Your task to perform on an android device: turn off data saver in the chrome app Image 0: 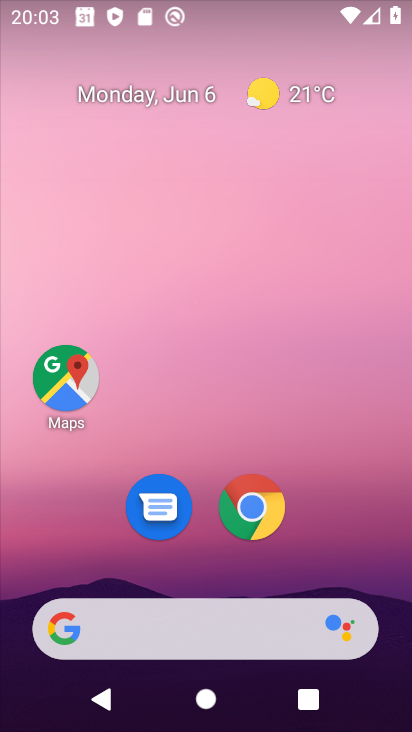
Step 0: drag from (210, 540) to (185, 0)
Your task to perform on an android device: turn off data saver in the chrome app Image 1: 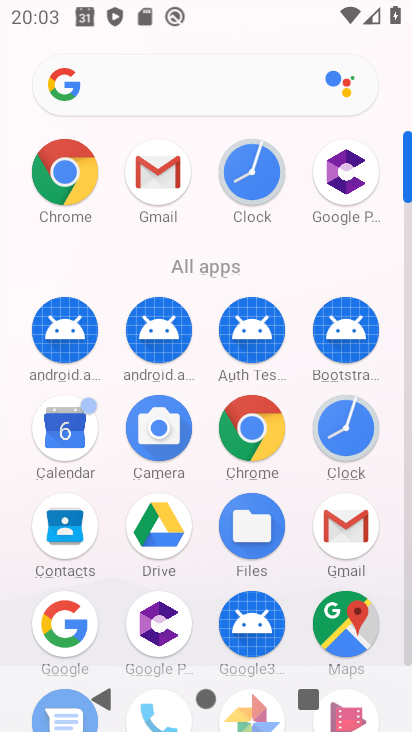
Step 1: click (67, 166)
Your task to perform on an android device: turn off data saver in the chrome app Image 2: 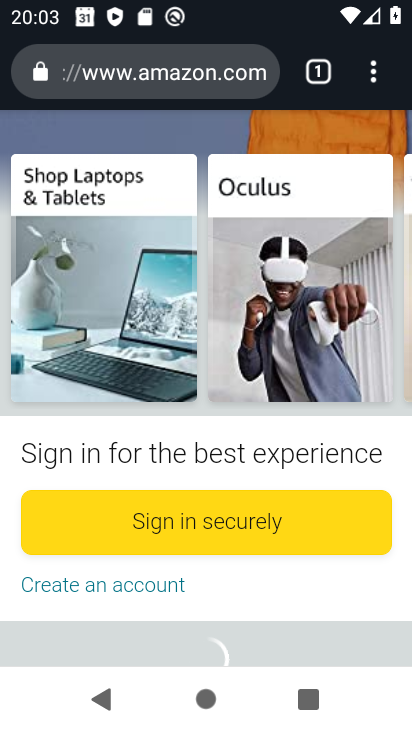
Step 2: click (375, 76)
Your task to perform on an android device: turn off data saver in the chrome app Image 3: 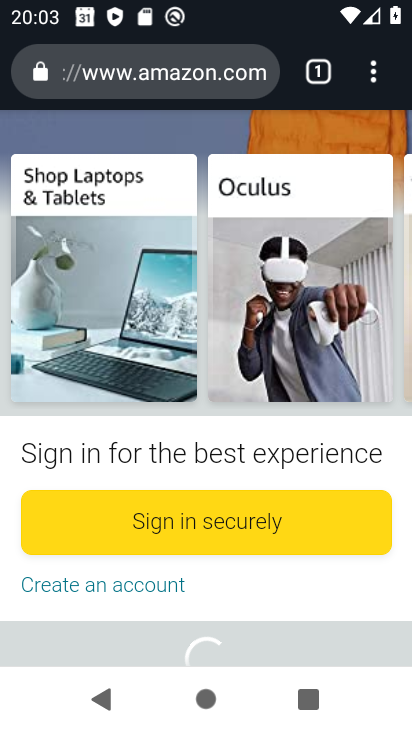
Step 3: click (380, 79)
Your task to perform on an android device: turn off data saver in the chrome app Image 4: 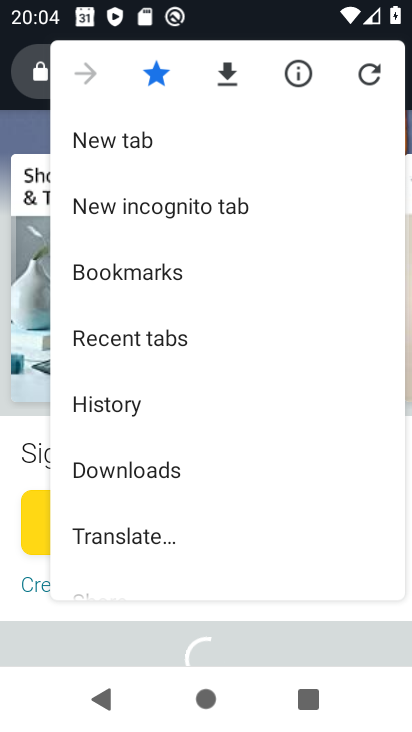
Step 4: drag from (185, 509) to (186, 209)
Your task to perform on an android device: turn off data saver in the chrome app Image 5: 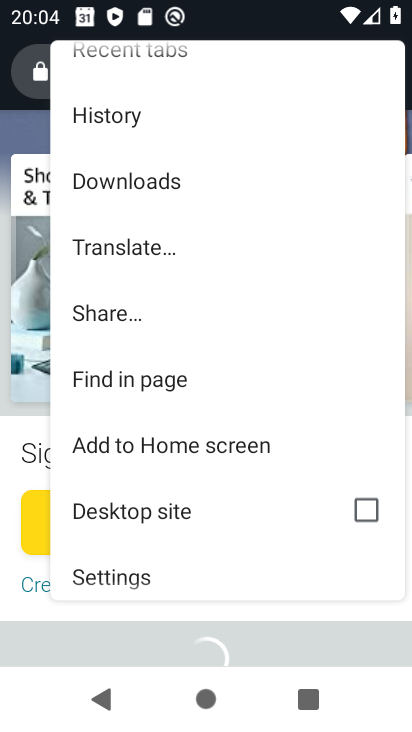
Step 5: click (127, 585)
Your task to perform on an android device: turn off data saver in the chrome app Image 6: 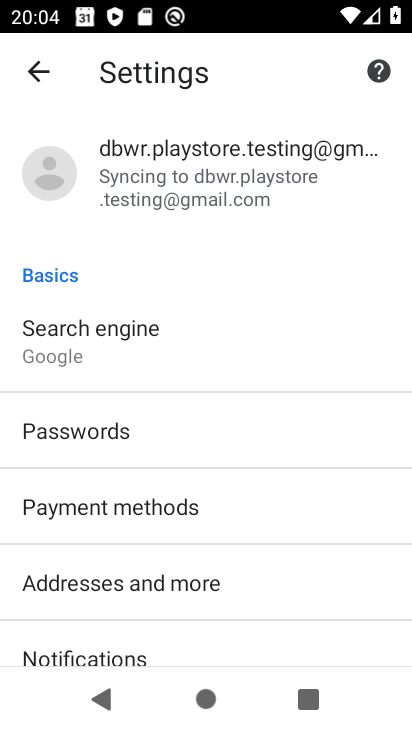
Step 6: drag from (153, 650) to (183, 273)
Your task to perform on an android device: turn off data saver in the chrome app Image 7: 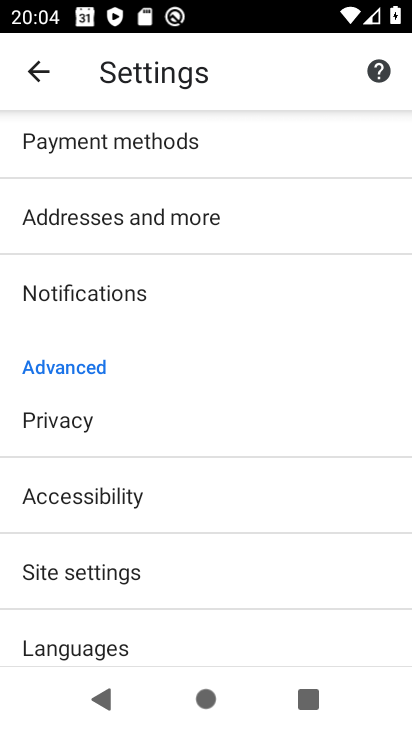
Step 7: drag from (121, 617) to (211, 271)
Your task to perform on an android device: turn off data saver in the chrome app Image 8: 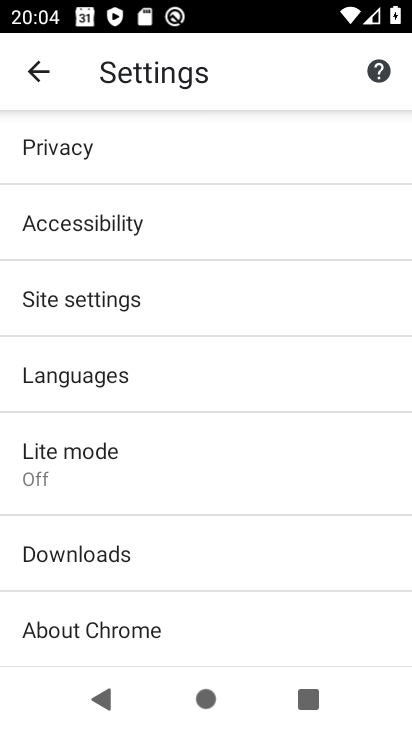
Step 8: click (77, 479)
Your task to perform on an android device: turn off data saver in the chrome app Image 9: 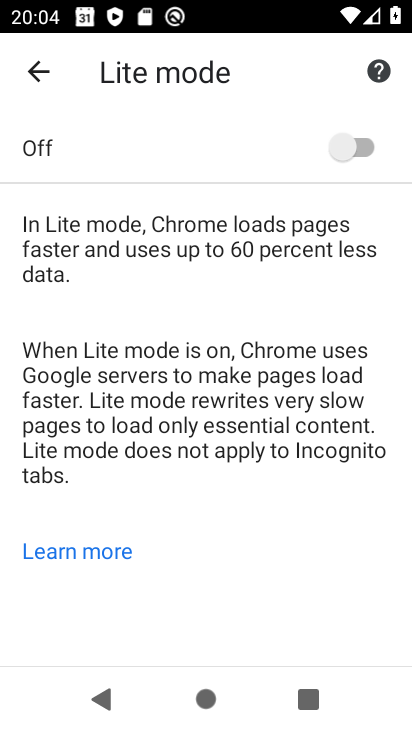
Step 9: task complete